Your task to perform on an android device: toggle javascript in the chrome app Image 0: 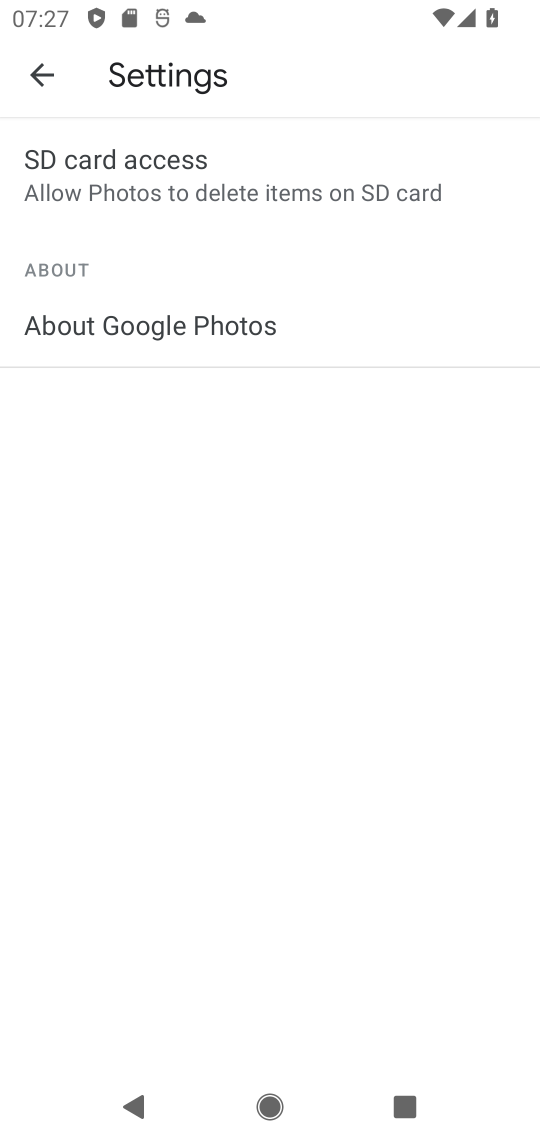
Step 0: press home button
Your task to perform on an android device: toggle javascript in the chrome app Image 1: 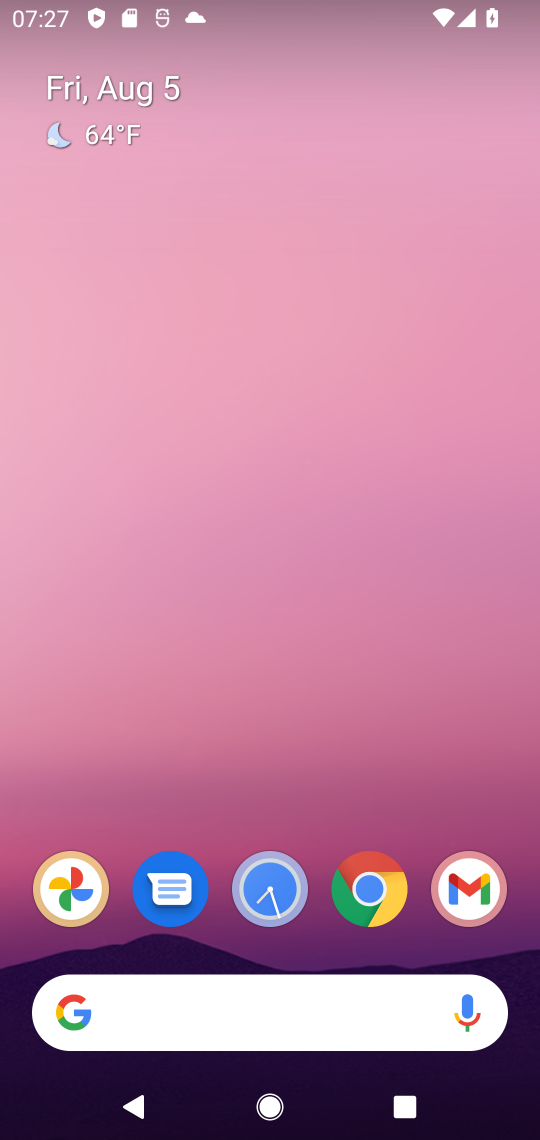
Step 1: click (378, 891)
Your task to perform on an android device: toggle javascript in the chrome app Image 2: 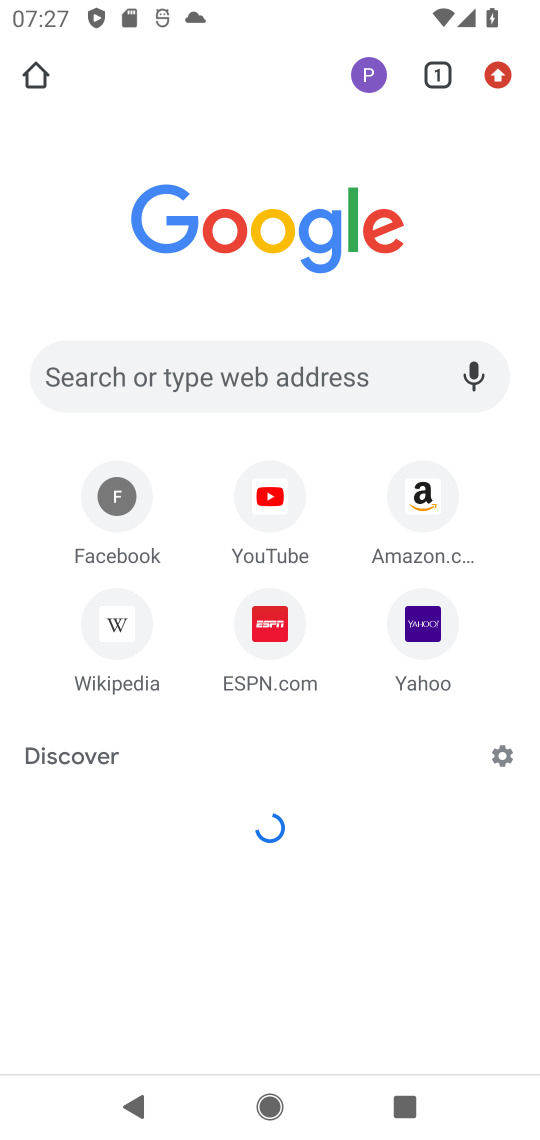
Step 2: click (496, 81)
Your task to perform on an android device: toggle javascript in the chrome app Image 3: 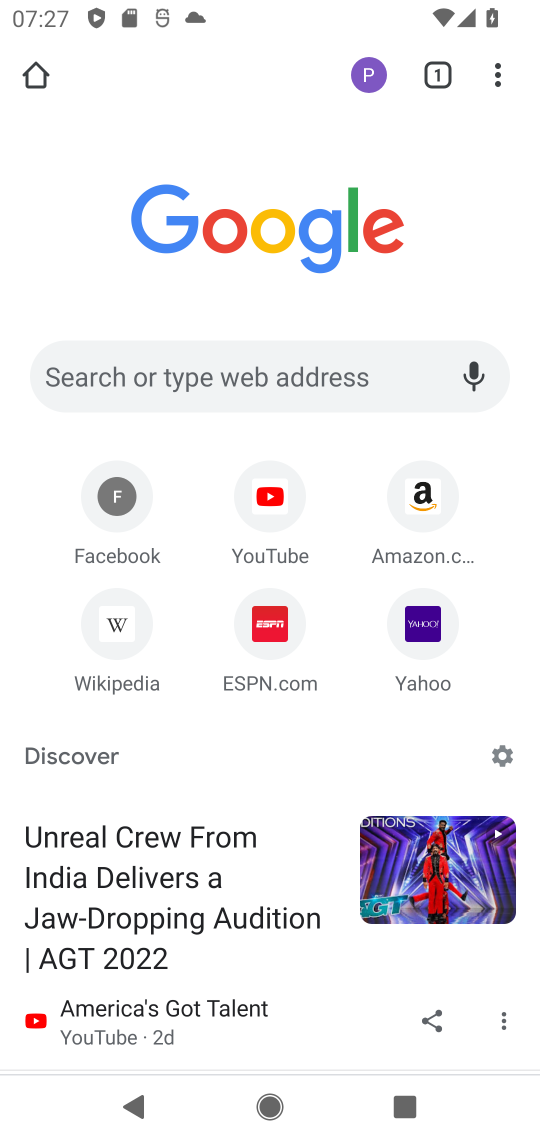
Step 3: click (496, 76)
Your task to perform on an android device: toggle javascript in the chrome app Image 4: 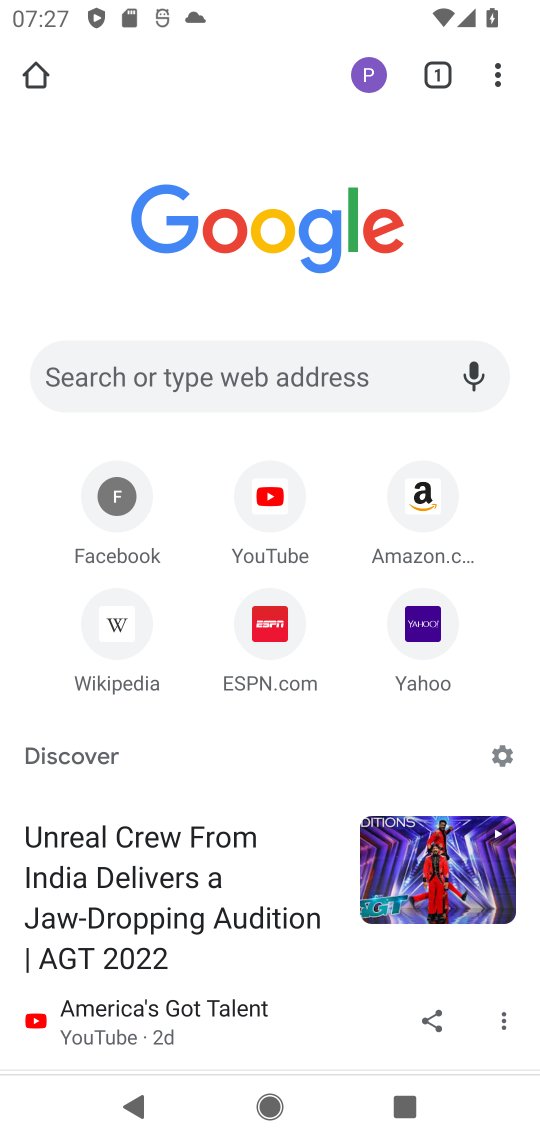
Step 4: click (504, 69)
Your task to perform on an android device: toggle javascript in the chrome app Image 5: 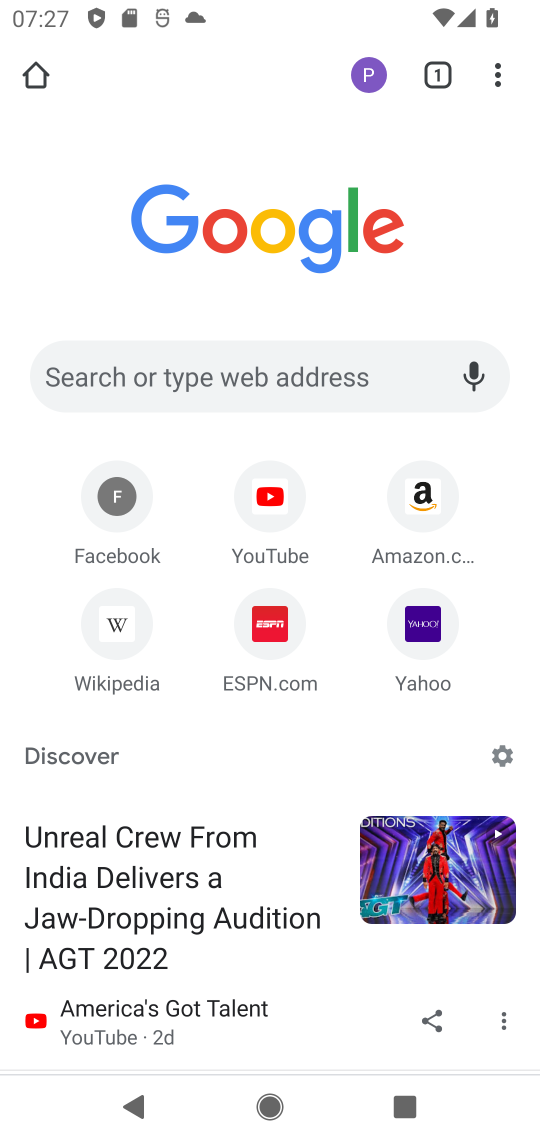
Step 5: click (506, 78)
Your task to perform on an android device: toggle javascript in the chrome app Image 6: 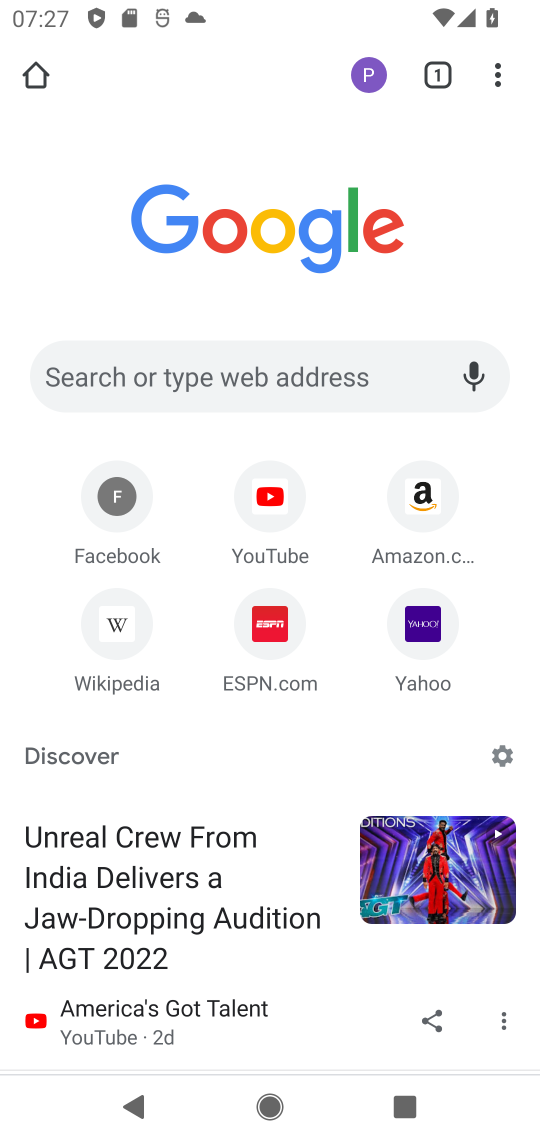
Step 6: click (497, 73)
Your task to perform on an android device: toggle javascript in the chrome app Image 7: 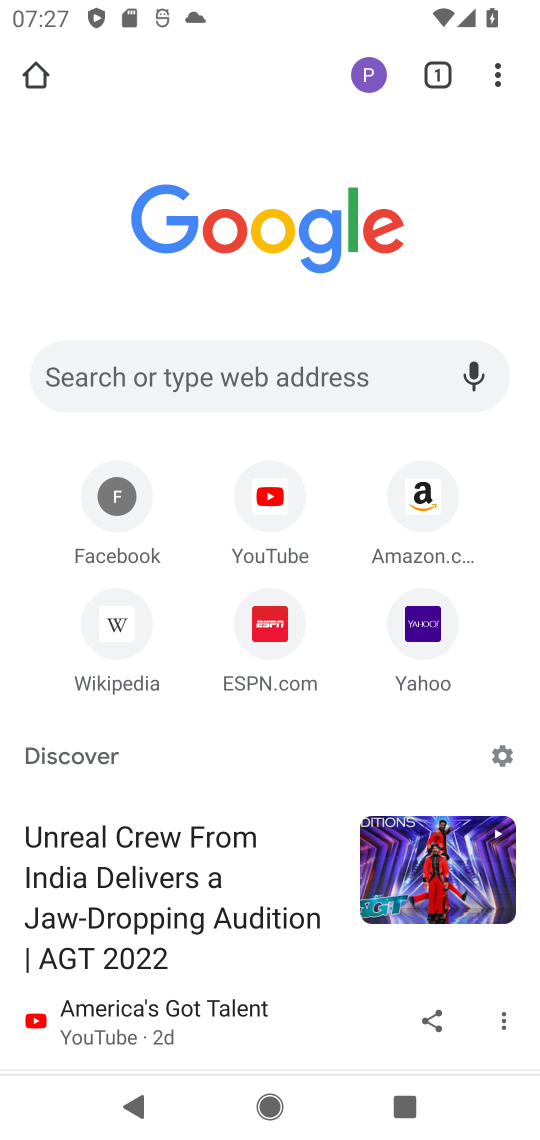
Step 7: click (495, 66)
Your task to perform on an android device: toggle javascript in the chrome app Image 8: 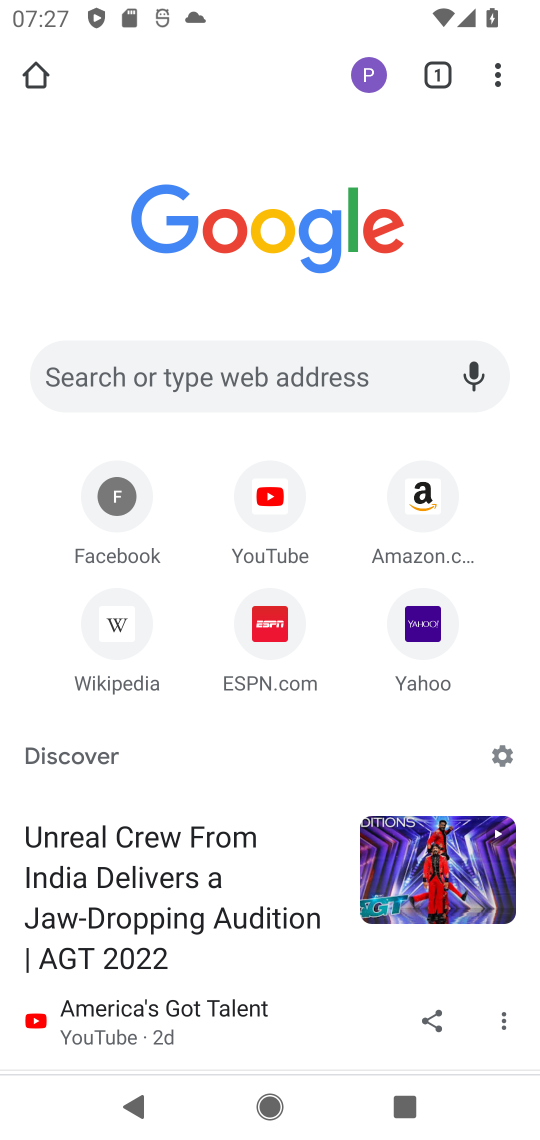
Step 8: click (490, 91)
Your task to perform on an android device: toggle javascript in the chrome app Image 9: 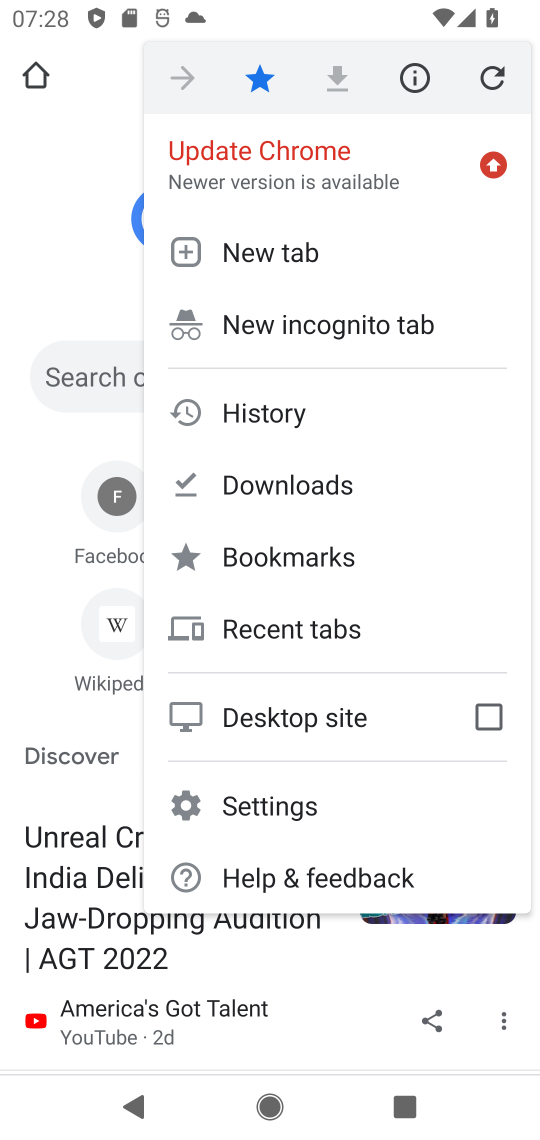
Step 9: click (253, 812)
Your task to perform on an android device: toggle javascript in the chrome app Image 10: 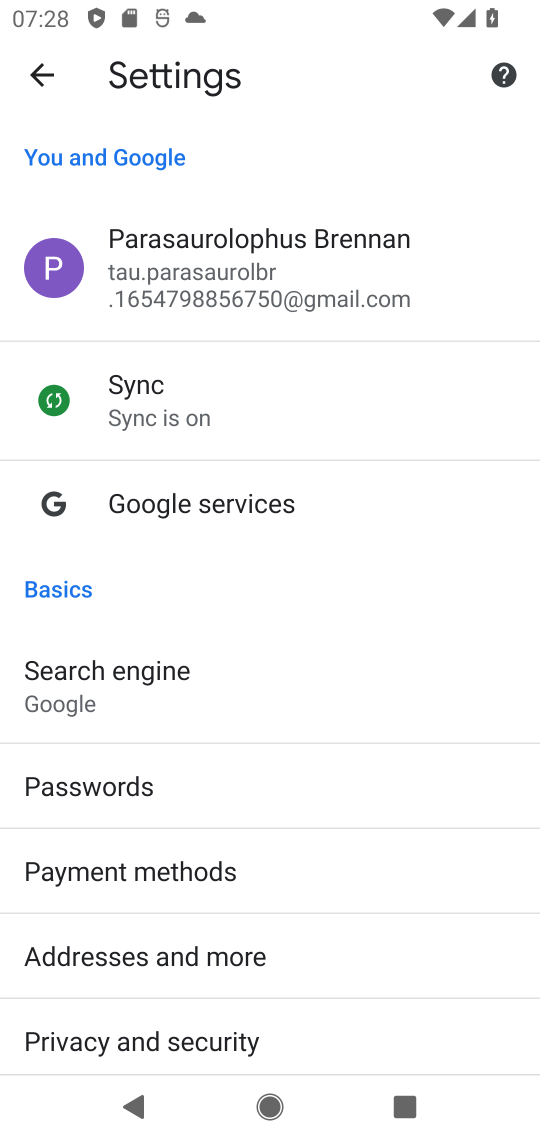
Step 10: drag from (149, 1007) to (145, 447)
Your task to perform on an android device: toggle javascript in the chrome app Image 11: 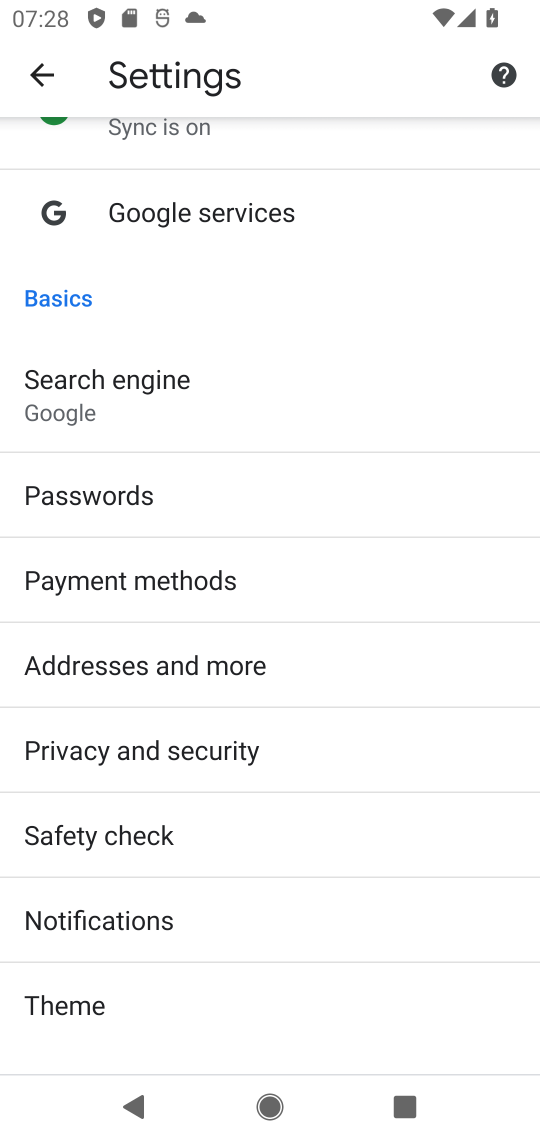
Step 11: drag from (172, 1014) to (175, 551)
Your task to perform on an android device: toggle javascript in the chrome app Image 12: 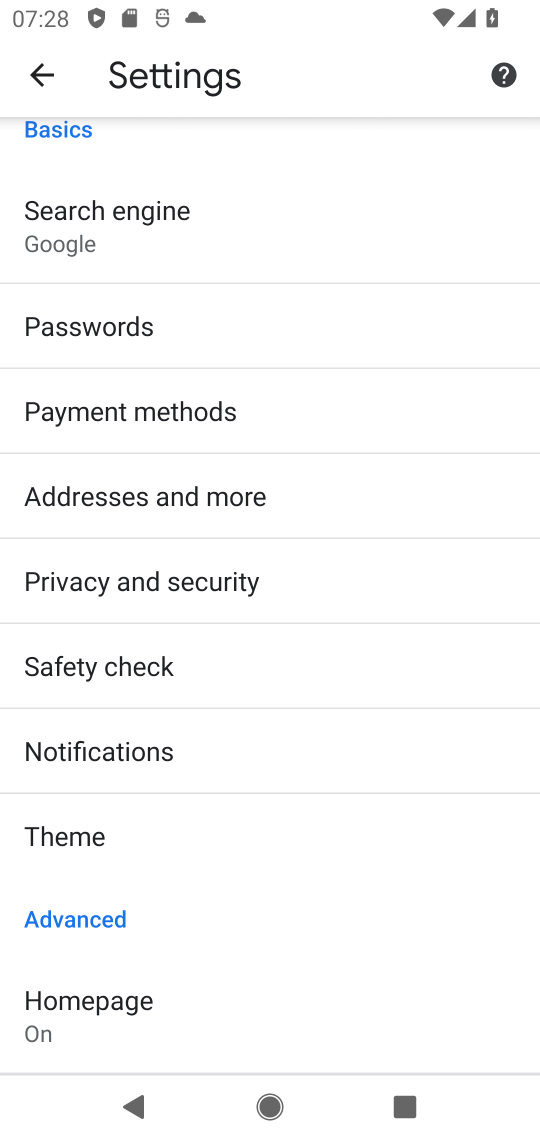
Step 12: drag from (239, 1046) to (298, 671)
Your task to perform on an android device: toggle javascript in the chrome app Image 13: 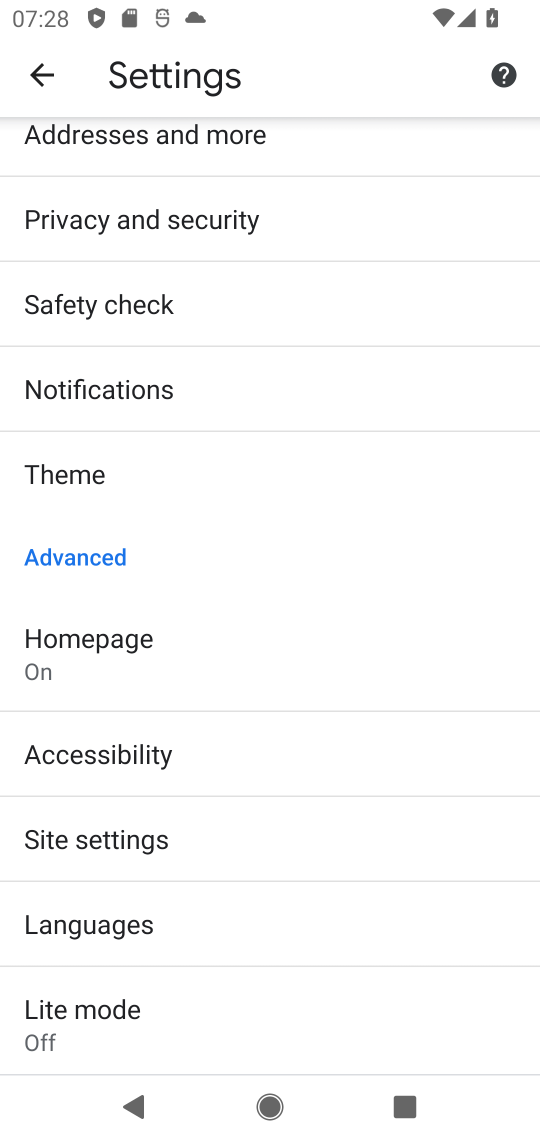
Step 13: click (148, 843)
Your task to perform on an android device: toggle javascript in the chrome app Image 14: 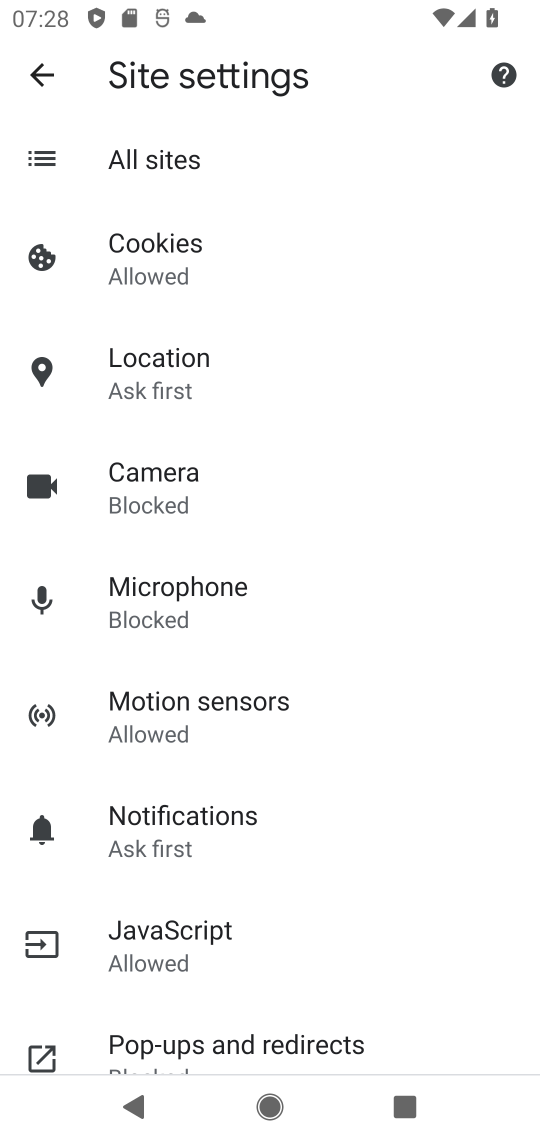
Step 14: click (176, 956)
Your task to perform on an android device: toggle javascript in the chrome app Image 15: 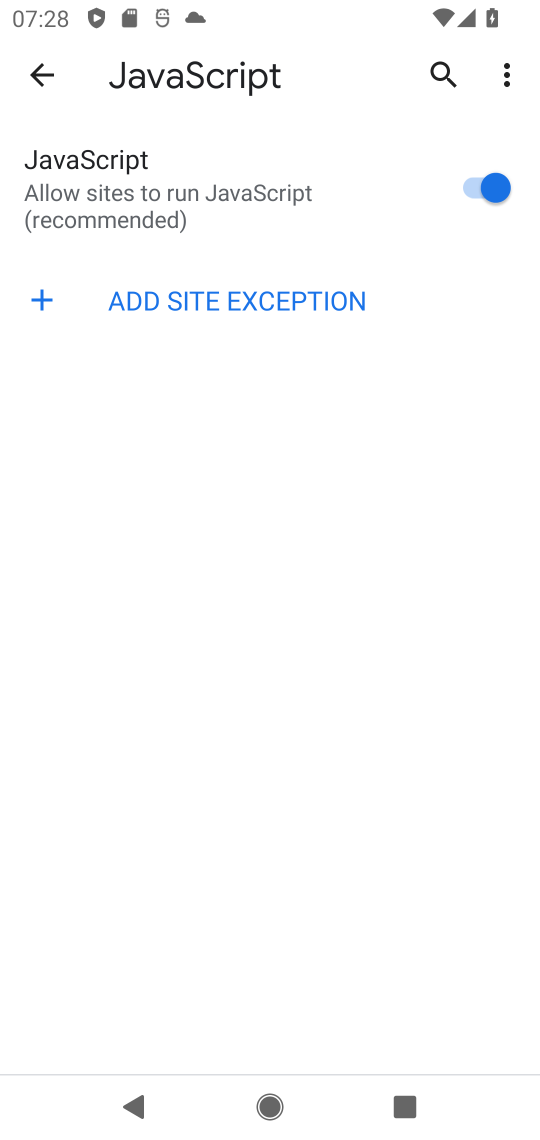
Step 15: click (487, 184)
Your task to perform on an android device: toggle javascript in the chrome app Image 16: 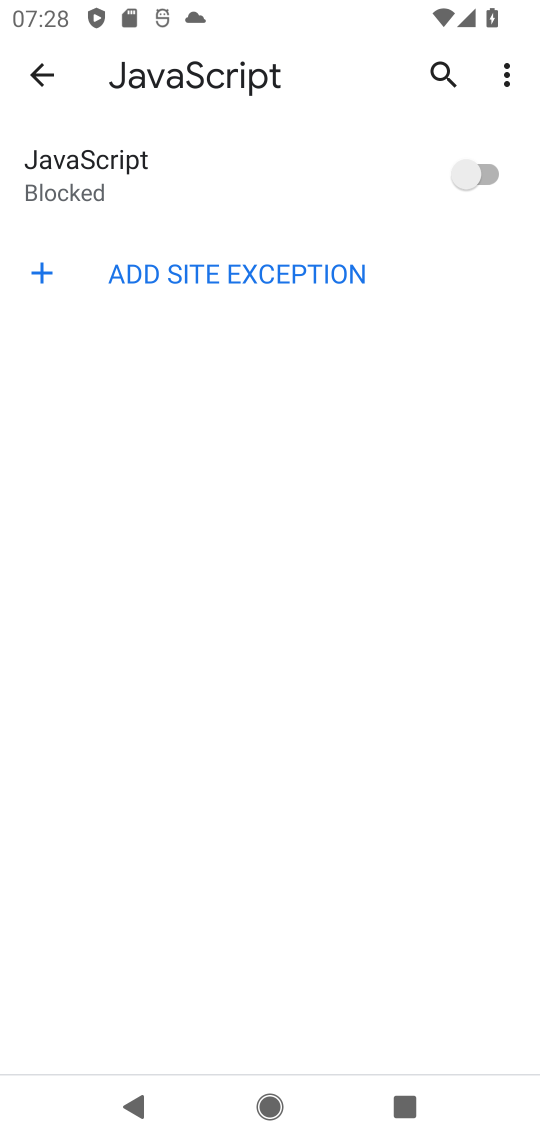
Step 16: task complete